Your task to perform on an android device: Open settings Image 0: 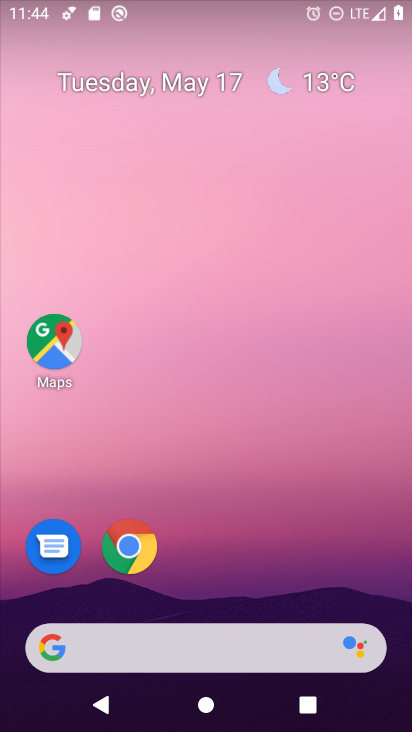
Step 0: drag from (248, 613) to (277, 1)
Your task to perform on an android device: Open settings Image 1: 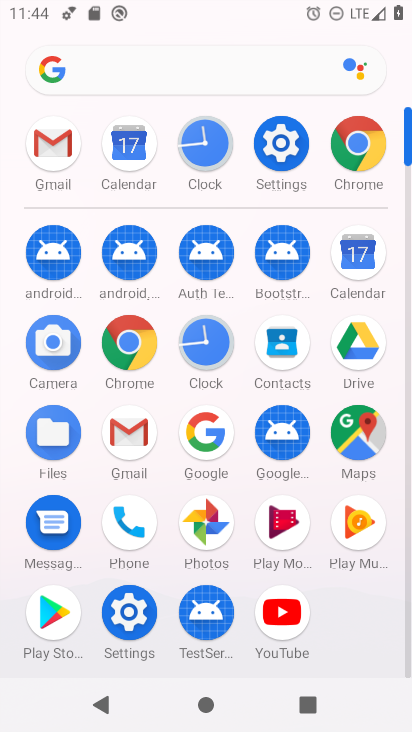
Step 1: click (275, 134)
Your task to perform on an android device: Open settings Image 2: 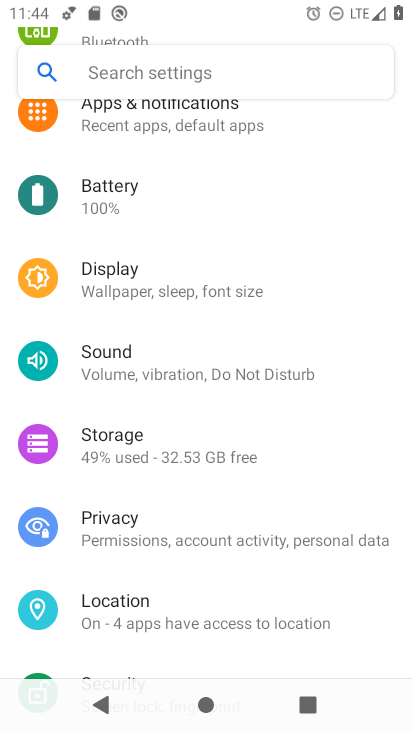
Step 2: task complete